Your task to perform on an android device: Open internet settings Image 0: 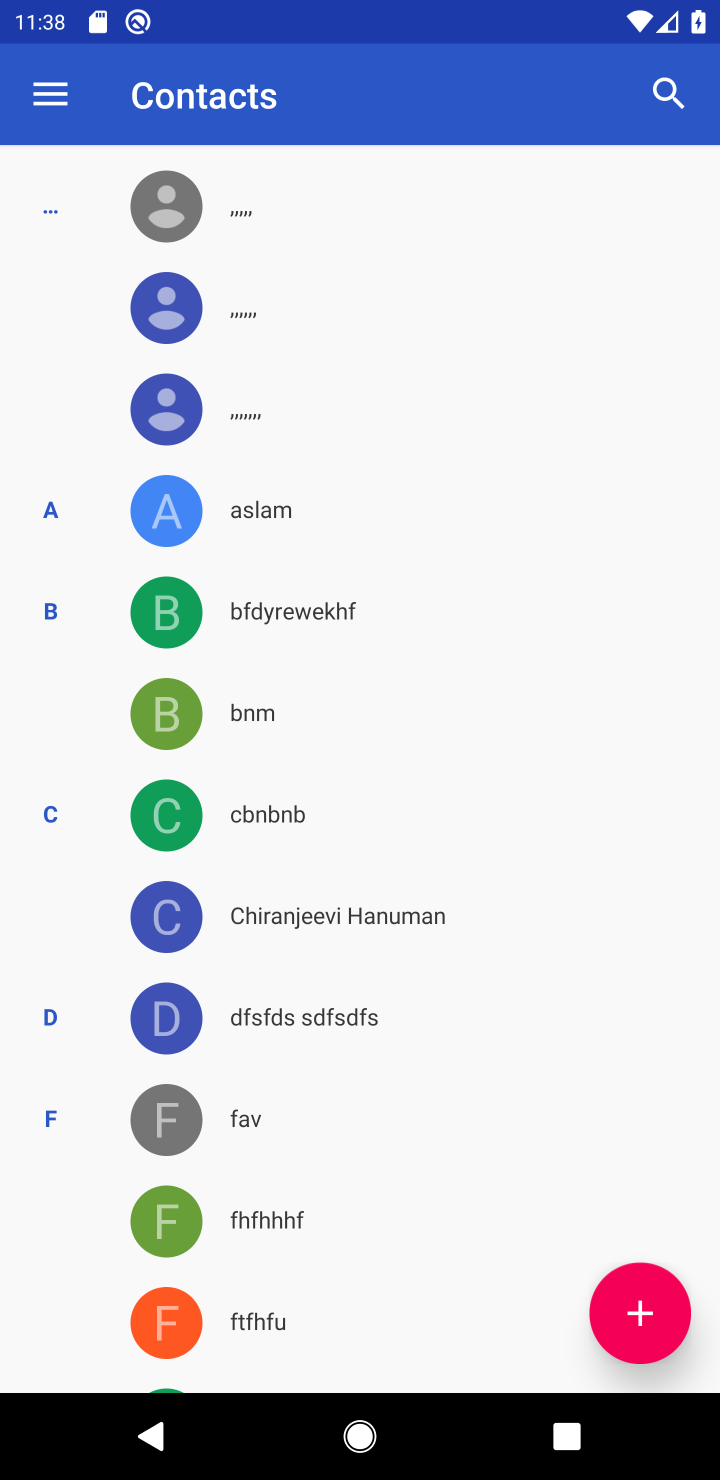
Step 0: press home button
Your task to perform on an android device: Open internet settings Image 1: 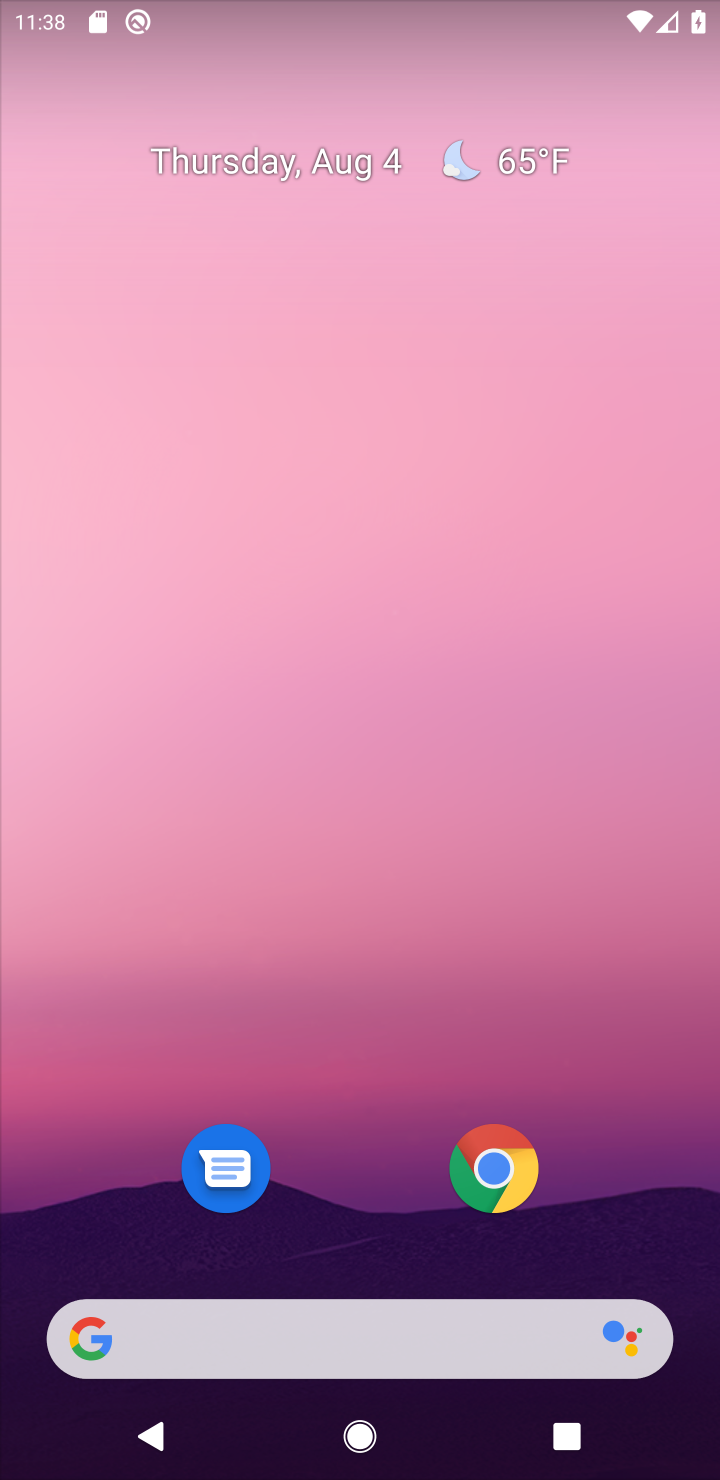
Step 1: drag from (298, 1276) to (524, 16)
Your task to perform on an android device: Open internet settings Image 2: 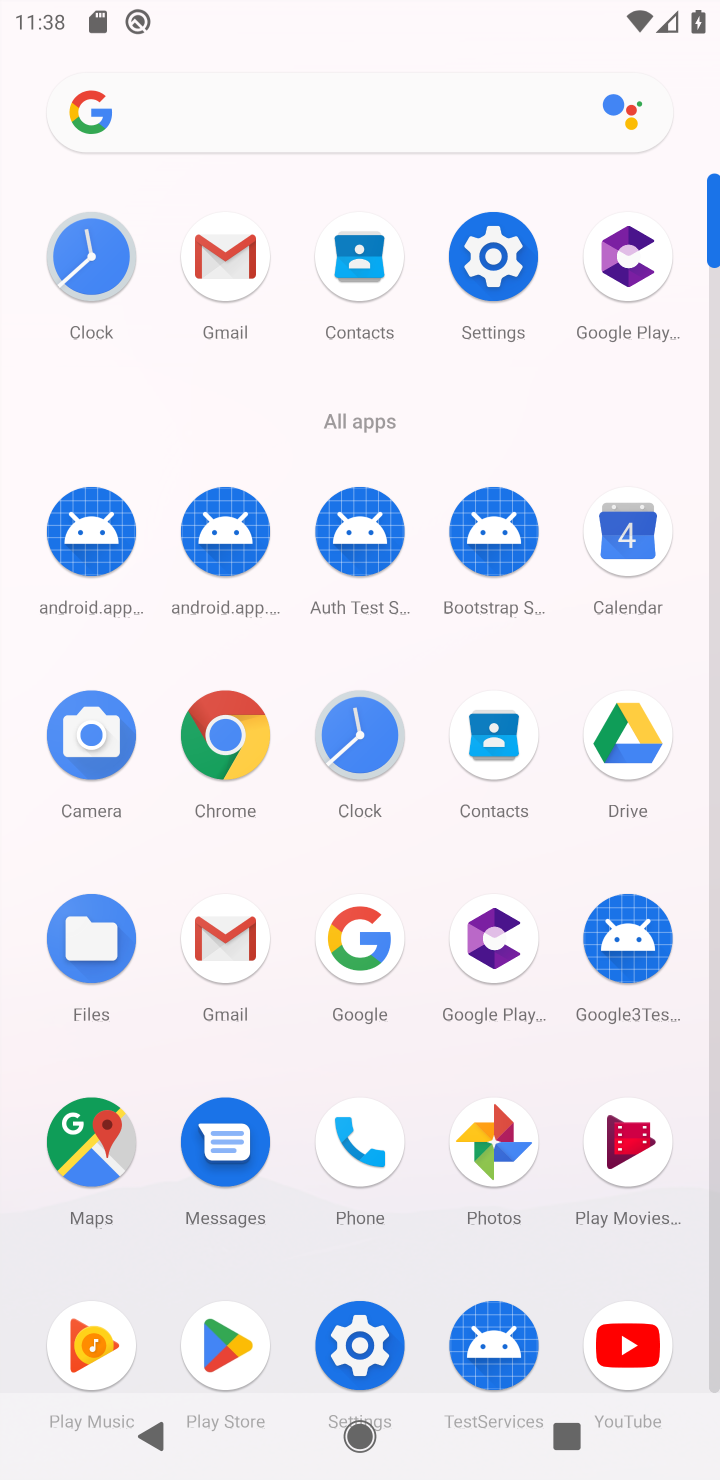
Step 2: click (339, 1352)
Your task to perform on an android device: Open internet settings Image 3: 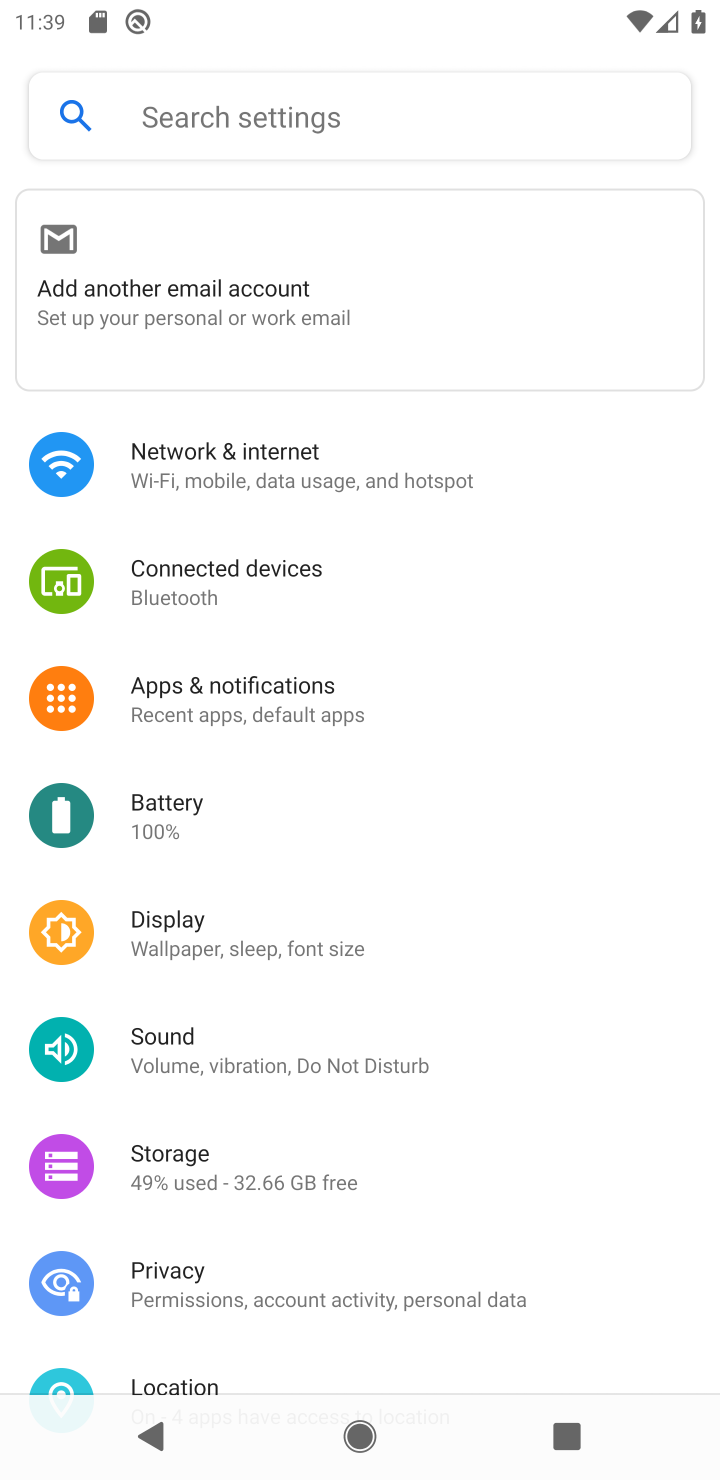
Step 3: click (304, 479)
Your task to perform on an android device: Open internet settings Image 4: 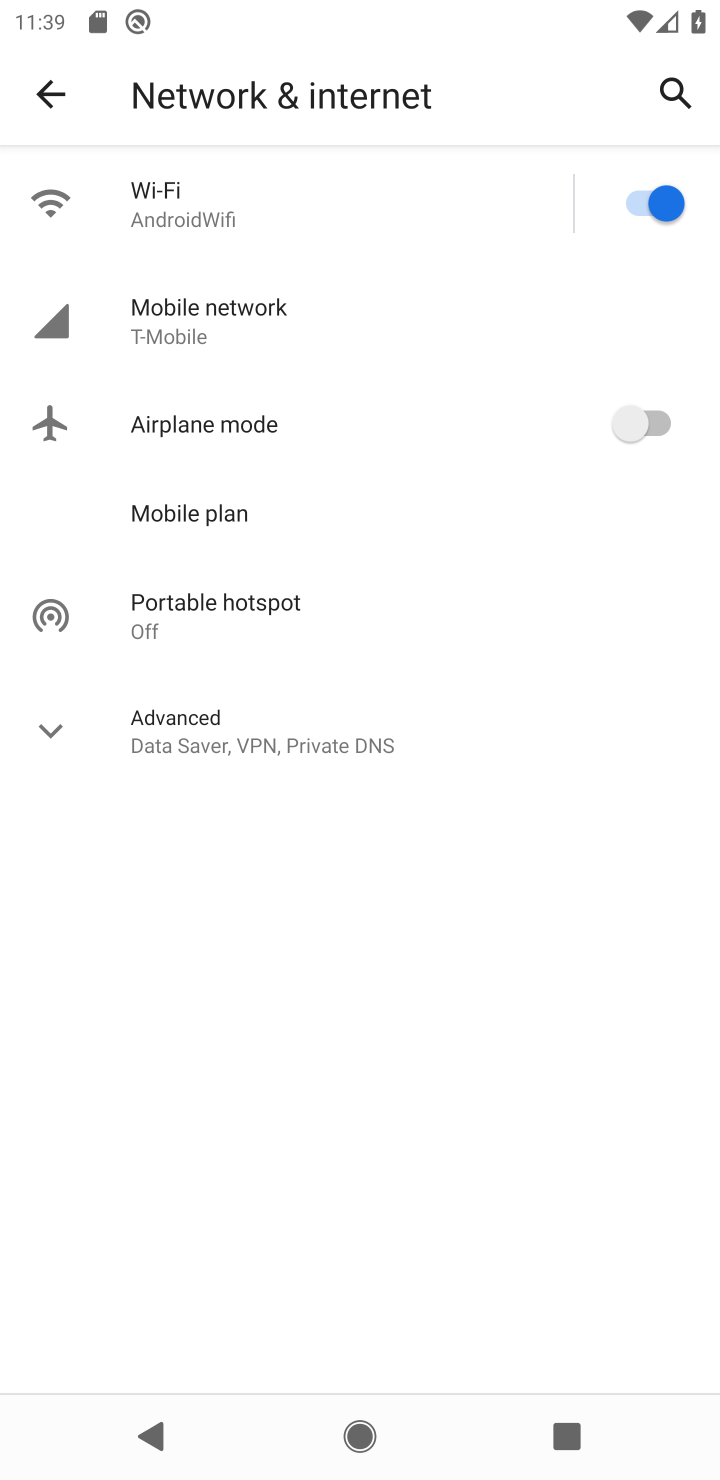
Step 4: task complete